Your task to perform on an android device: Show me popular videos on Youtube Image 0: 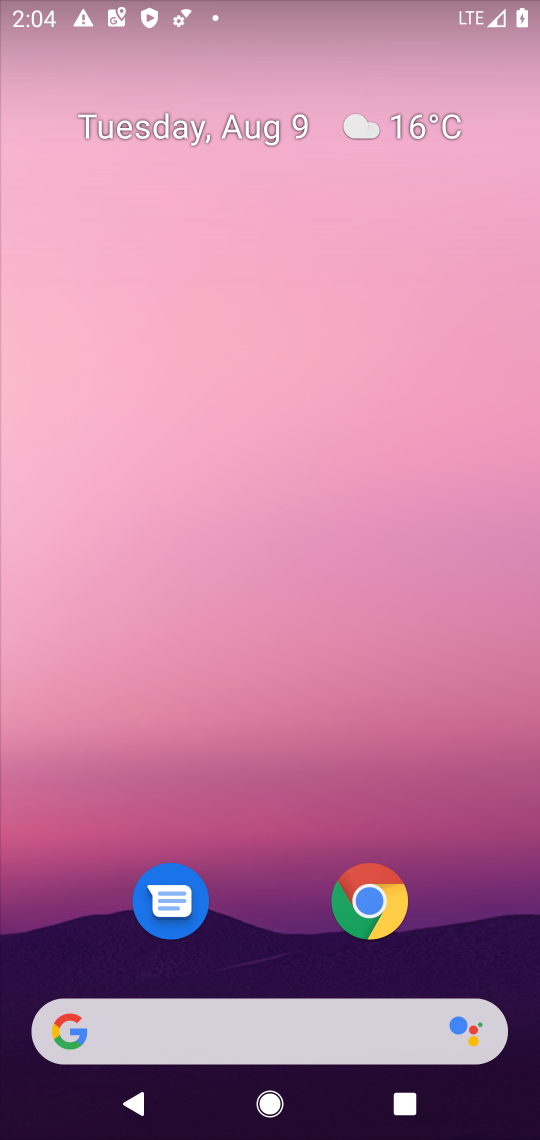
Step 0: drag from (513, 956) to (481, 201)
Your task to perform on an android device: Show me popular videos on Youtube Image 1: 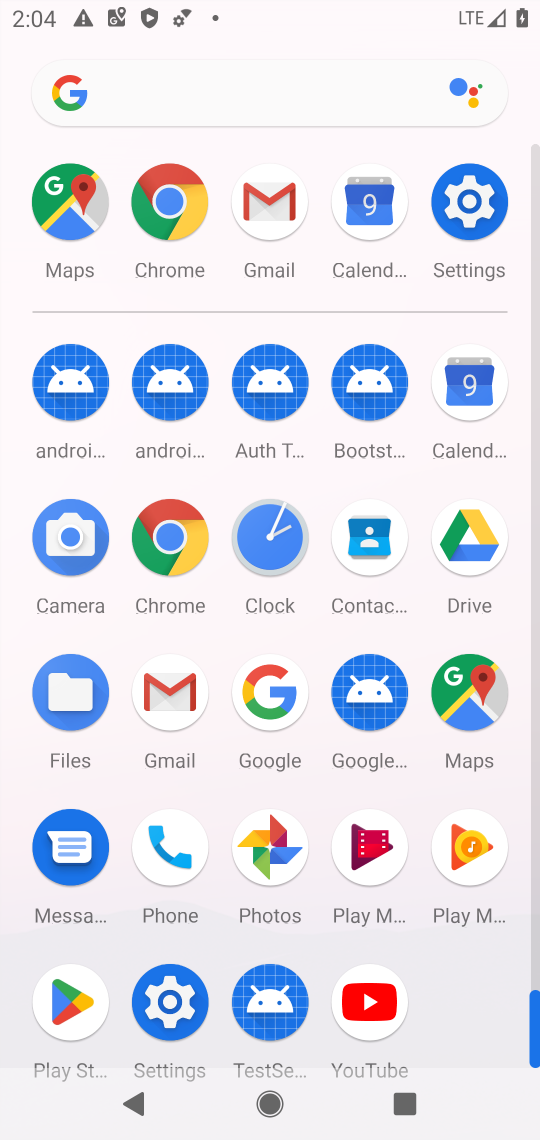
Step 1: click (372, 1001)
Your task to perform on an android device: Show me popular videos on Youtube Image 2: 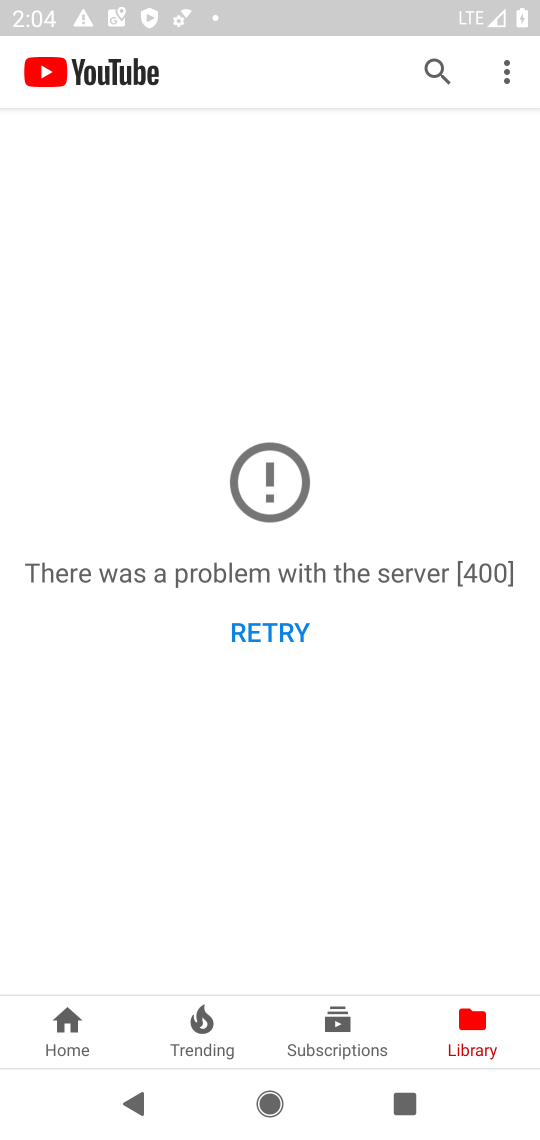
Step 2: click (199, 1023)
Your task to perform on an android device: Show me popular videos on Youtube Image 3: 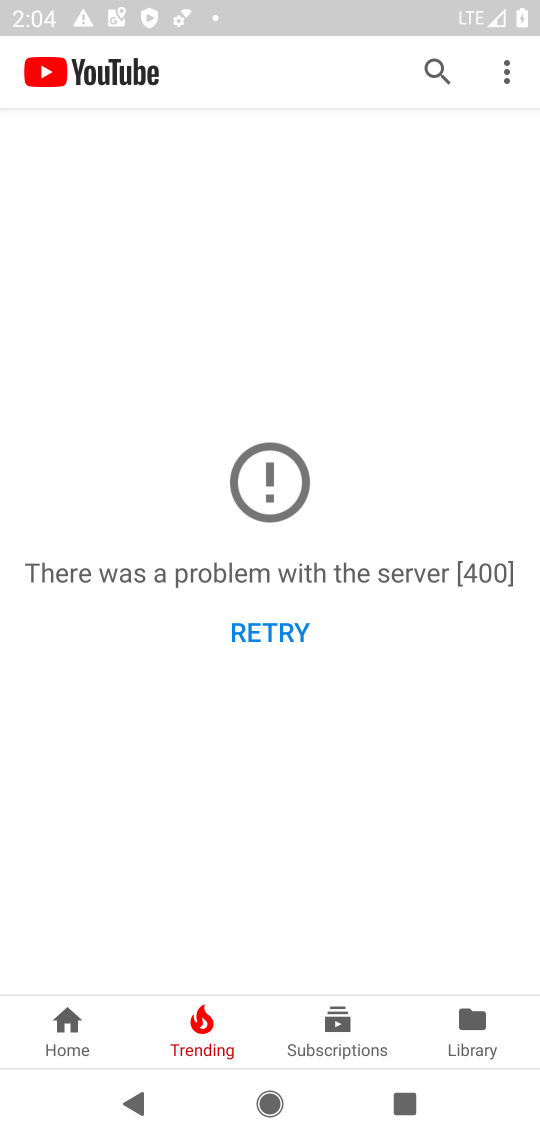
Step 3: click (279, 634)
Your task to perform on an android device: Show me popular videos on Youtube Image 4: 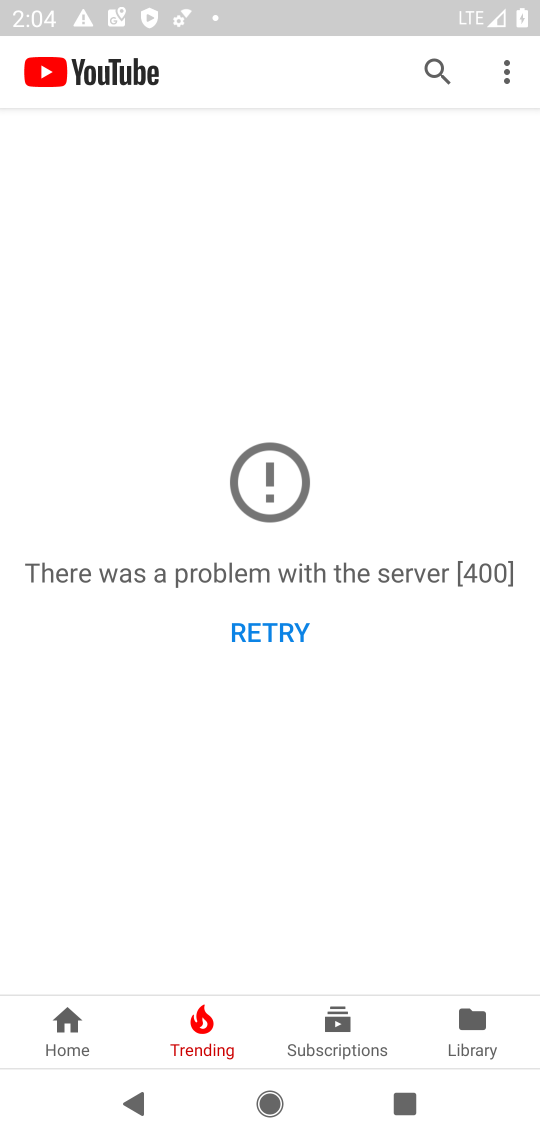
Step 4: task complete